Your task to perform on an android device: Search for a new lawnmower on Lowes. Image 0: 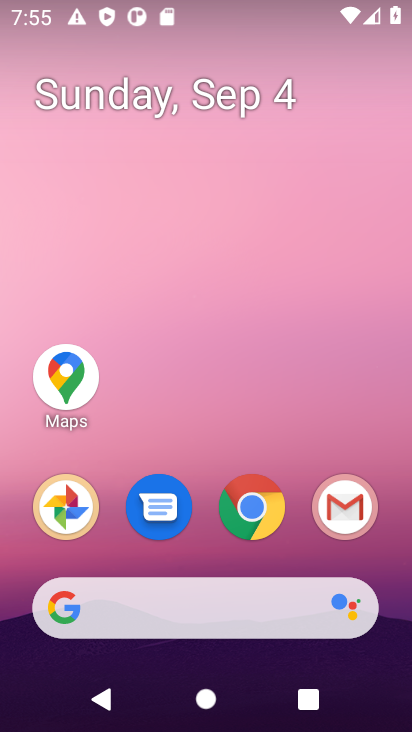
Step 0: click (246, 535)
Your task to perform on an android device: Search for a new lawnmower on Lowes. Image 1: 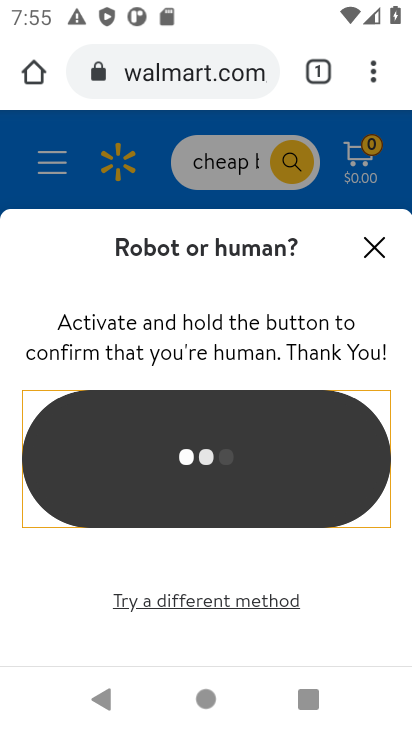
Step 1: click (246, 77)
Your task to perform on an android device: Search for a new lawnmower on Lowes. Image 2: 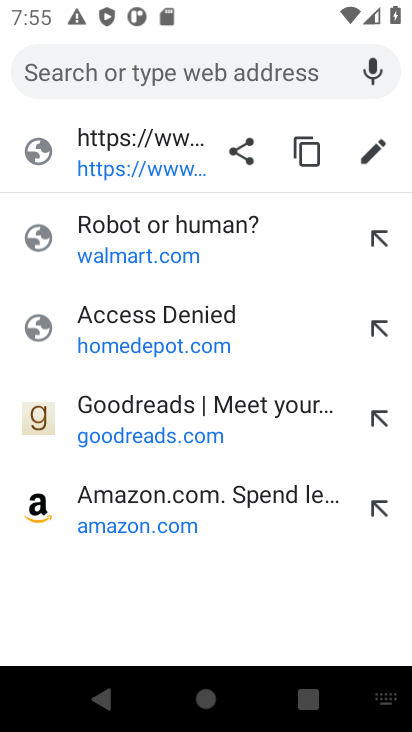
Step 2: type "lowes"
Your task to perform on an android device: Search for a new lawnmower on Lowes. Image 3: 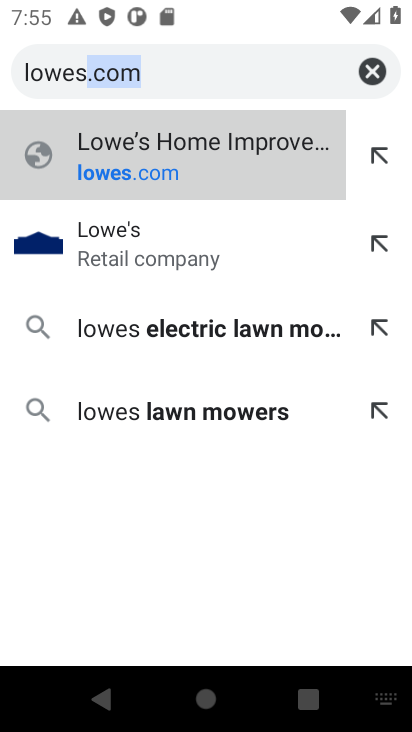
Step 3: click (182, 153)
Your task to perform on an android device: Search for a new lawnmower on Lowes. Image 4: 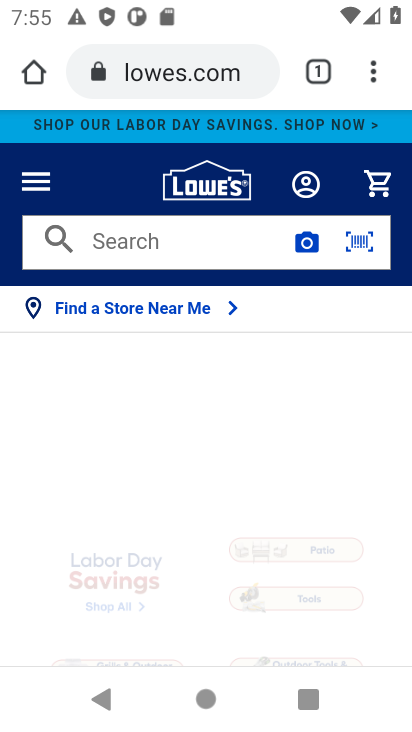
Step 4: click (194, 234)
Your task to perform on an android device: Search for a new lawnmower on Lowes. Image 5: 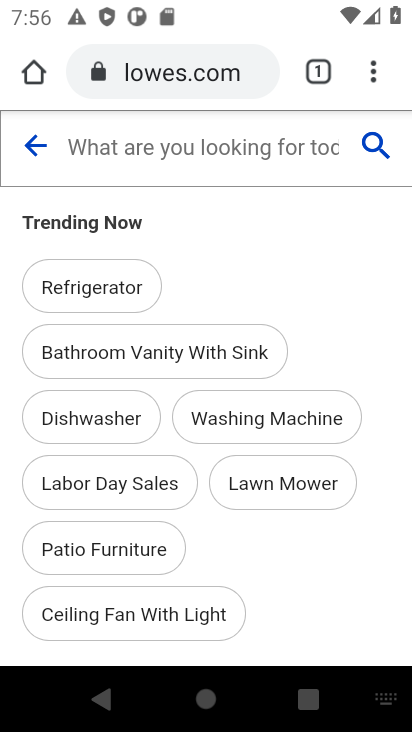
Step 5: type "new lawnmower"
Your task to perform on an android device: Search for a new lawnmower on Lowes. Image 6: 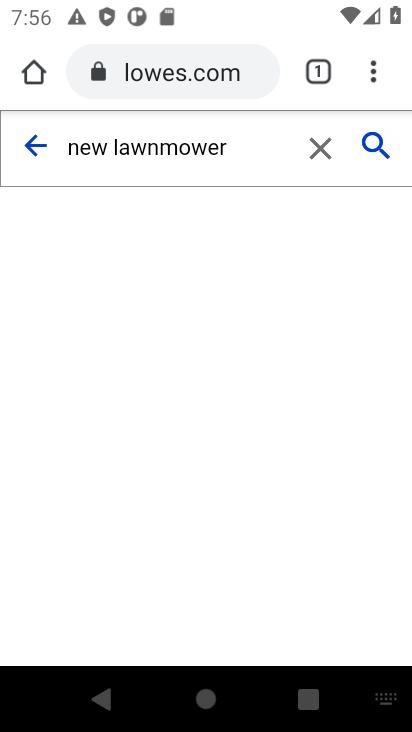
Step 6: press enter
Your task to perform on an android device: Search for a new lawnmower on Lowes. Image 7: 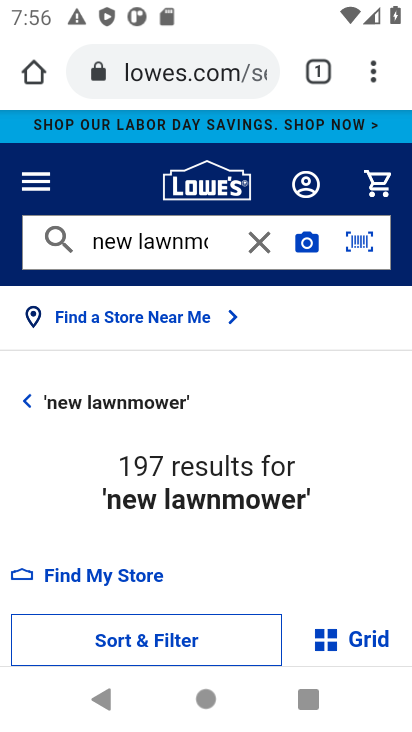
Step 7: task complete